Your task to perform on an android device: See recent photos Image 0: 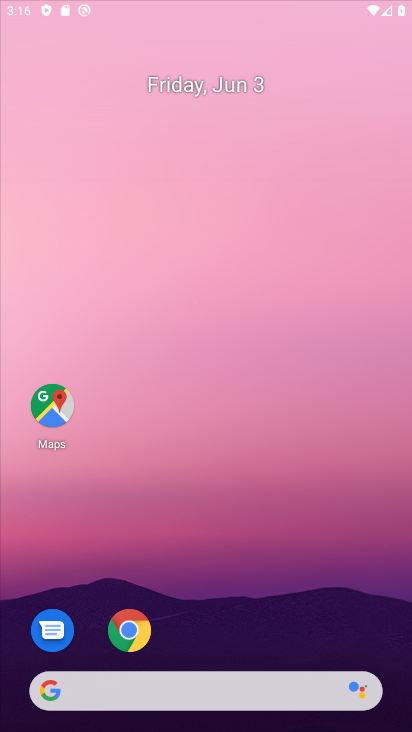
Step 0: click (214, 202)
Your task to perform on an android device: See recent photos Image 1: 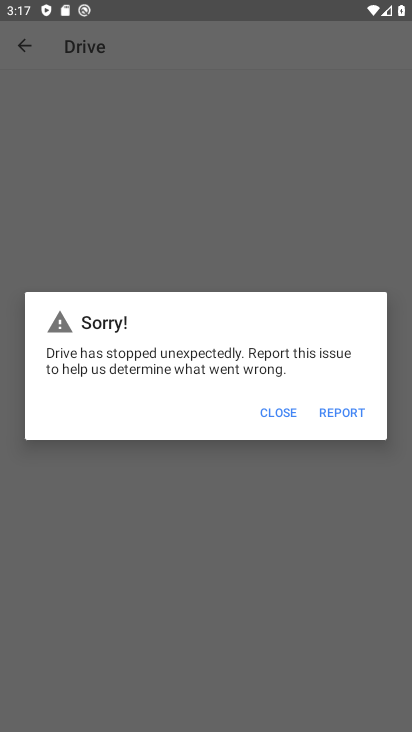
Step 1: click (281, 412)
Your task to perform on an android device: See recent photos Image 2: 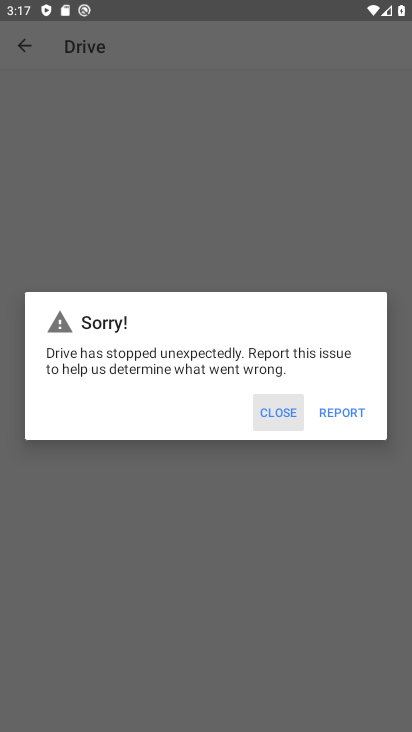
Step 2: click (281, 412)
Your task to perform on an android device: See recent photos Image 3: 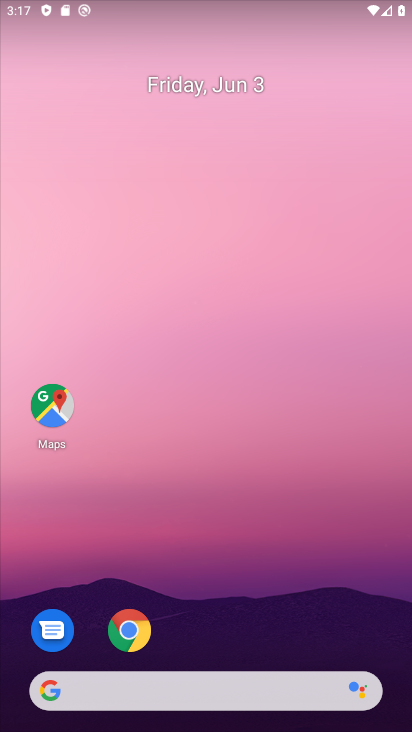
Step 3: drag from (239, 726) to (183, 204)
Your task to perform on an android device: See recent photos Image 4: 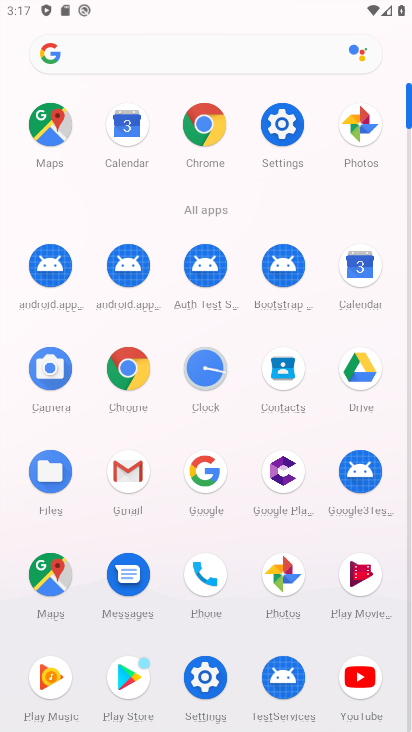
Step 4: click (280, 570)
Your task to perform on an android device: See recent photos Image 5: 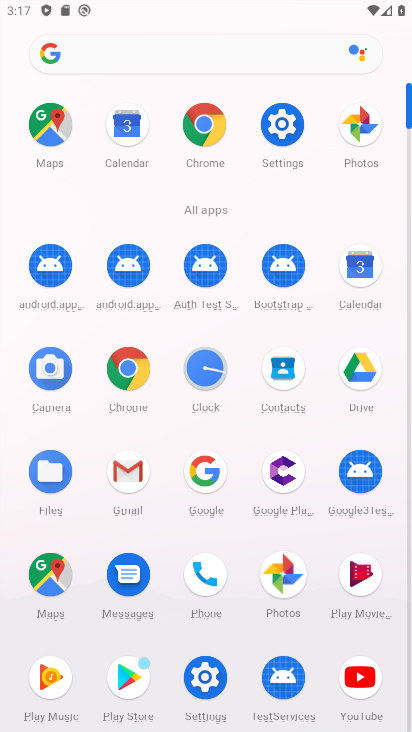
Step 5: click (280, 570)
Your task to perform on an android device: See recent photos Image 6: 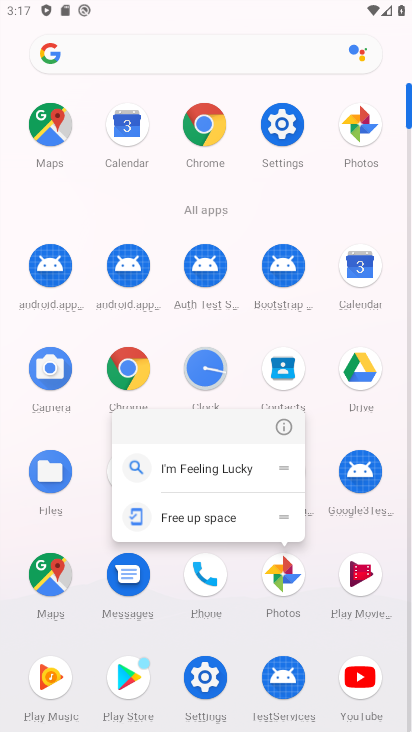
Step 6: click (281, 575)
Your task to perform on an android device: See recent photos Image 7: 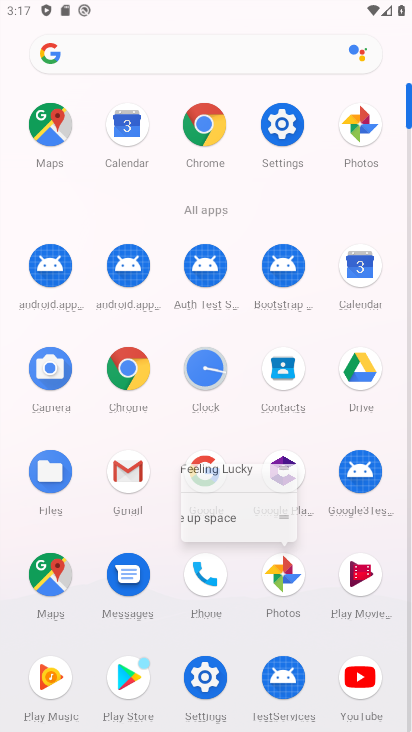
Step 7: click (282, 574)
Your task to perform on an android device: See recent photos Image 8: 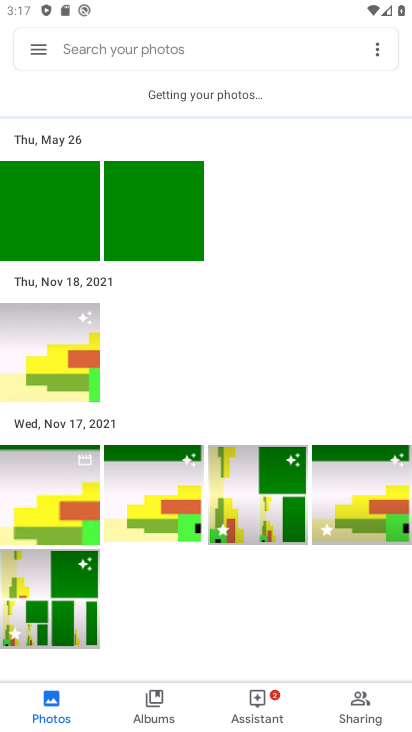
Step 8: task complete